Your task to perform on an android device: empty trash in google photos Image 0: 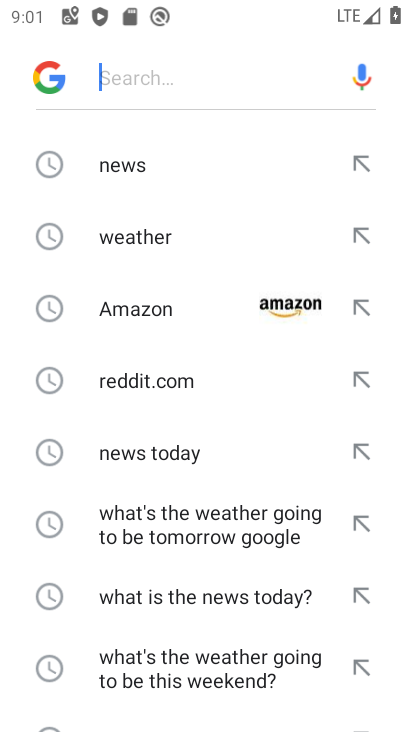
Step 0: press home button
Your task to perform on an android device: empty trash in google photos Image 1: 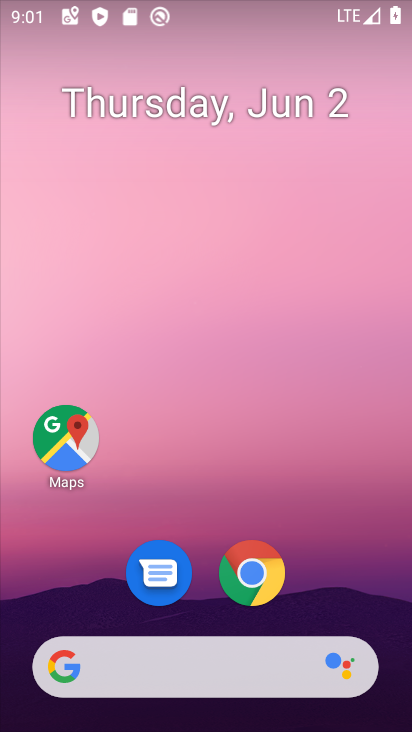
Step 1: drag from (357, 612) to (278, 7)
Your task to perform on an android device: empty trash in google photos Image 2: 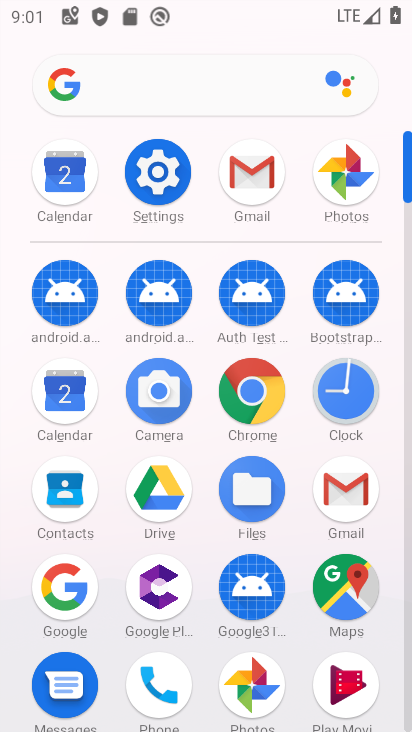
Step 2: click (260, 668)
Your task to perform on an android device: empty trash in google photos Image 3: 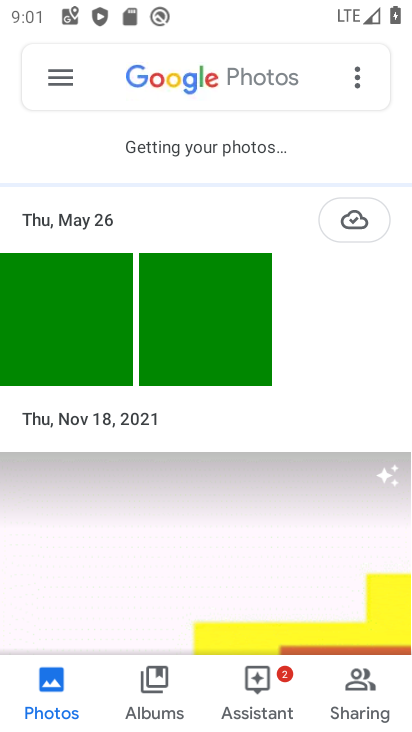
Step 3: click (56, 78)
Your task to perform on an android device: empty trash in google photos Image 4: 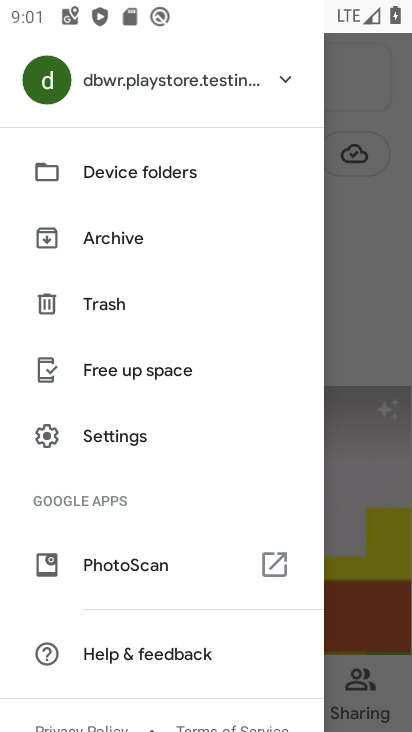
Step 4: click (107, 302)
Your task to perform on an android device: empty trash in google photos Image 5: 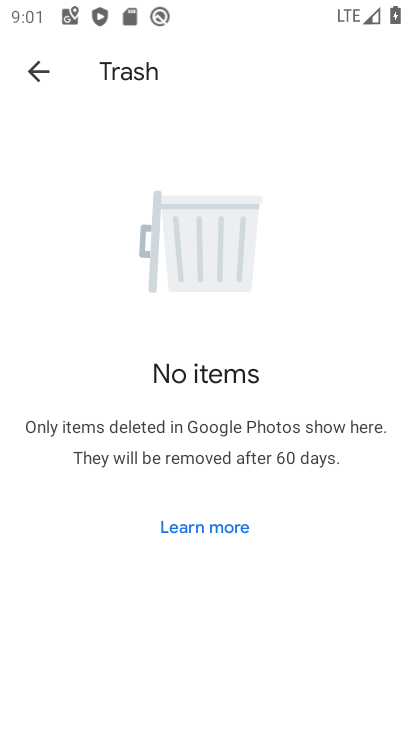
Step 5: task complete